Your task to perform on an android device: toggle airplane mode Image 0: 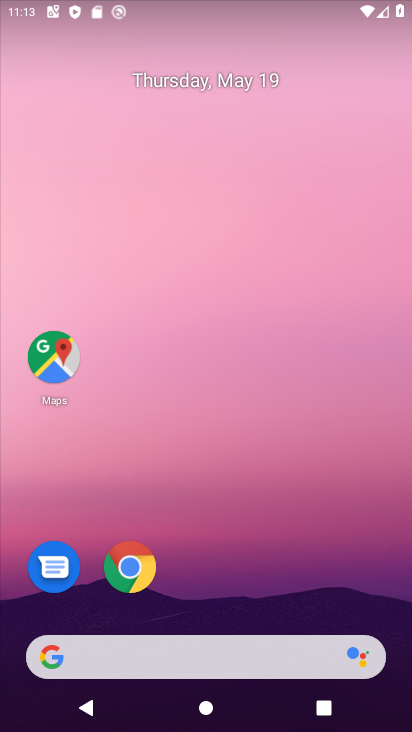
Step 0: drag from (387, 613) to (324, 53)
Your task to perform on an android device: toggle airplane mode Image 1: 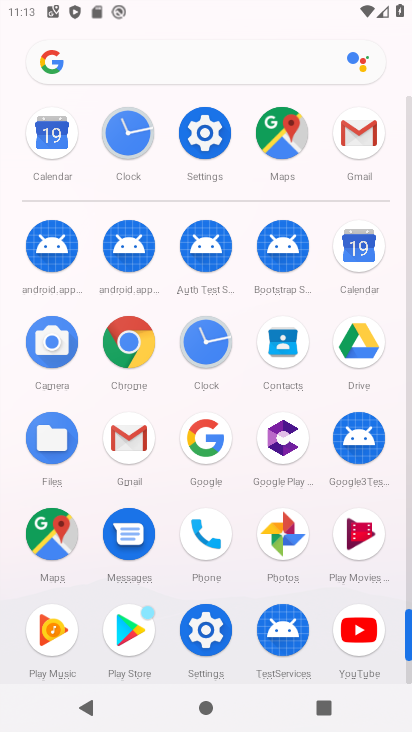
Step 1: click (408, 669)
Your task to perform on an android device: toggle airplane mode Image 2: 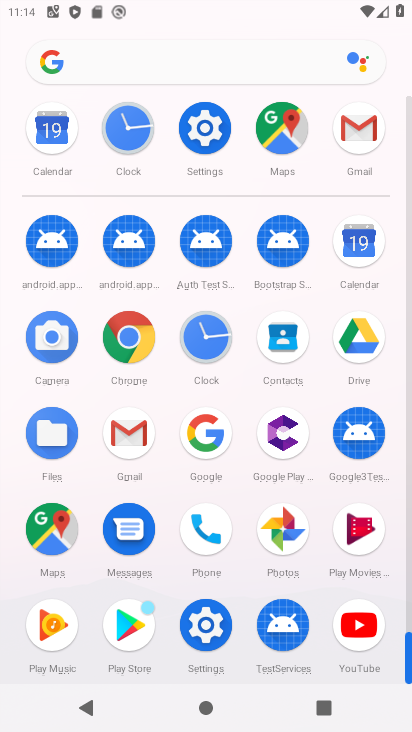
Step 2: click (203, 622)
Your task to perform on an android device: toggle airplane mode Image 3: 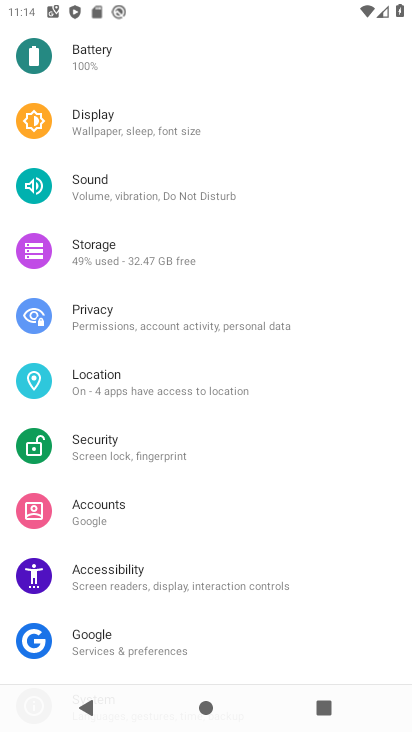
Step 3: drag from (309, 81) to (324, 375)
Your task to perform on an android device: toggle airplane mode Image 4: 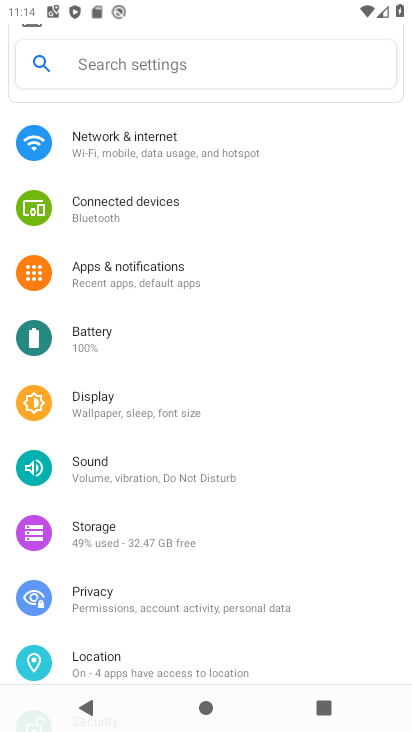
Step 4: click (107, 137)
Your task to perform on an android device: toggle airplane mode Image 5: 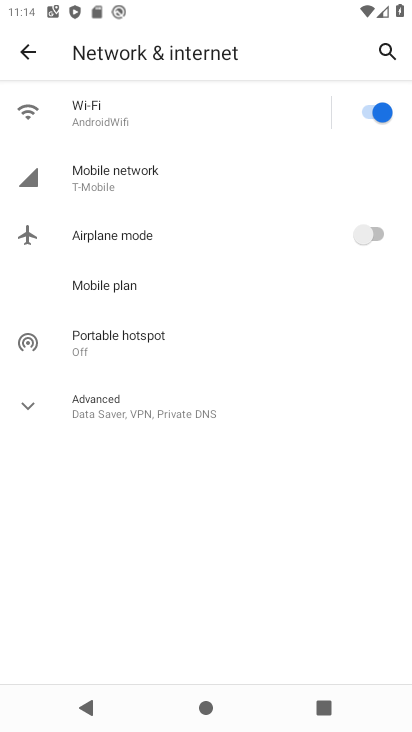
Step 5: click (378, 231)
Your task to perform on an android device: toggle airplane mode Image 6: 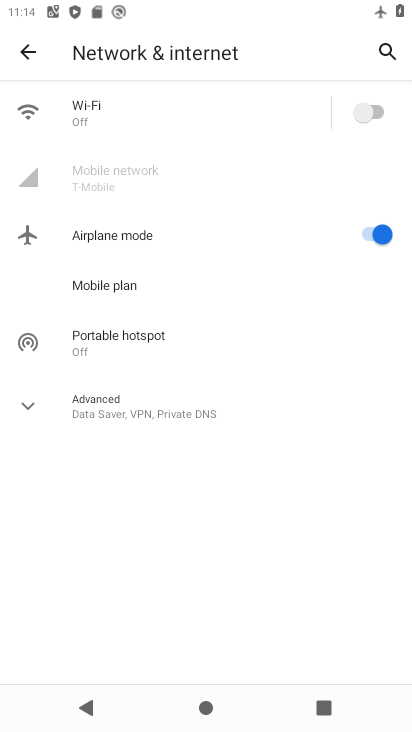
Step 6: task complete